Your task to perform on an android device: Open Yahoo.com Image 0: 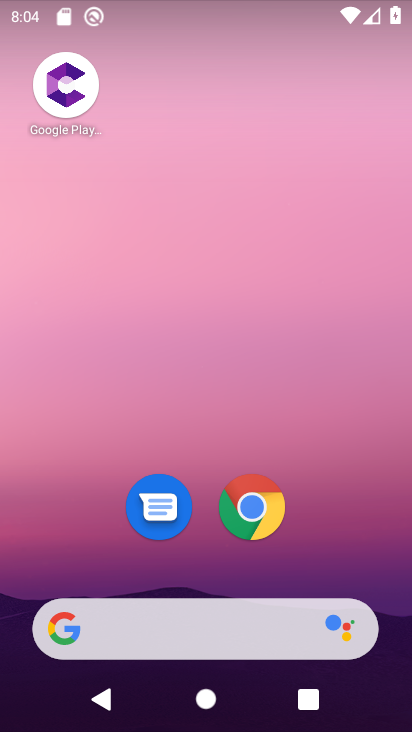
Step 0: drag from (196, 595) to (232, 88)
Your task to perform on an android device: Open Yahoo.com Image 1: 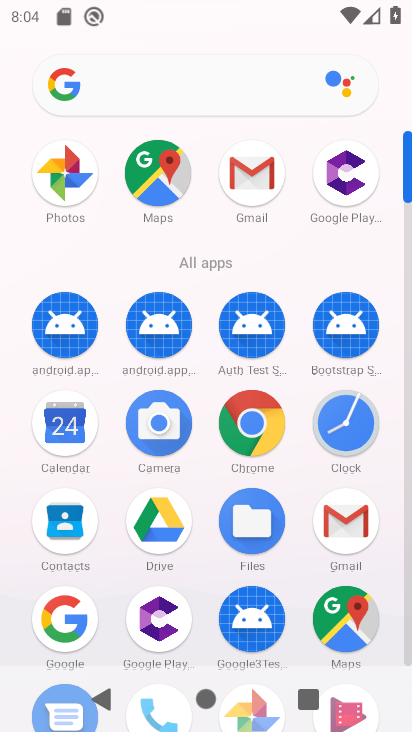
Step 1: drag from (208, 576) to (265, 197)
Your task to perform on an android device: Open Yahoo.com Image 2: 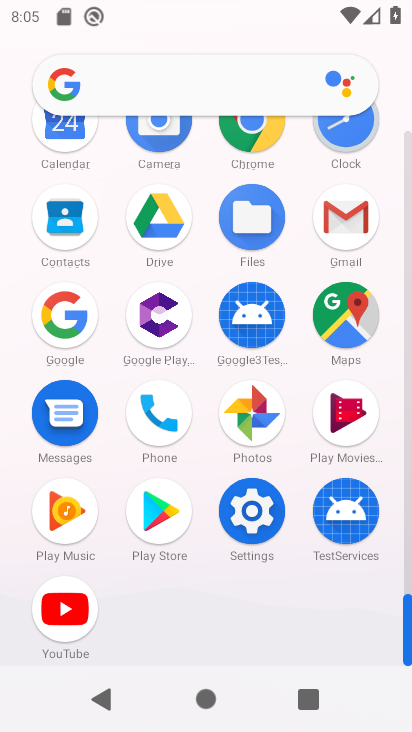
Step 2: click (190, 82)
Your task to perform on an android device: Open Yahoo.com Image 3: 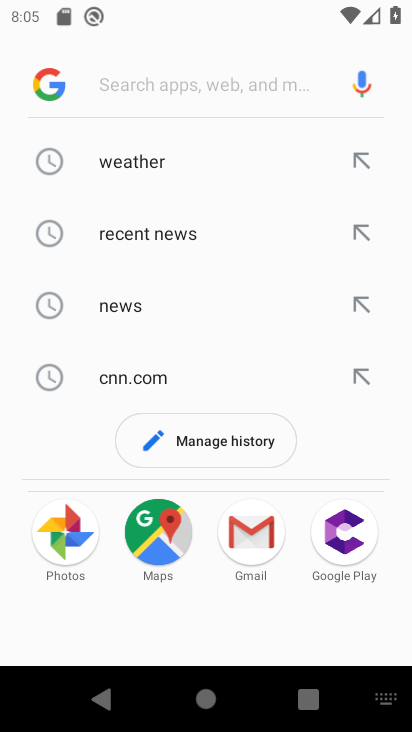
Step 3: type "yahoo.com"
Your task to perform on an android device: Open Yahoo.com Image 4: 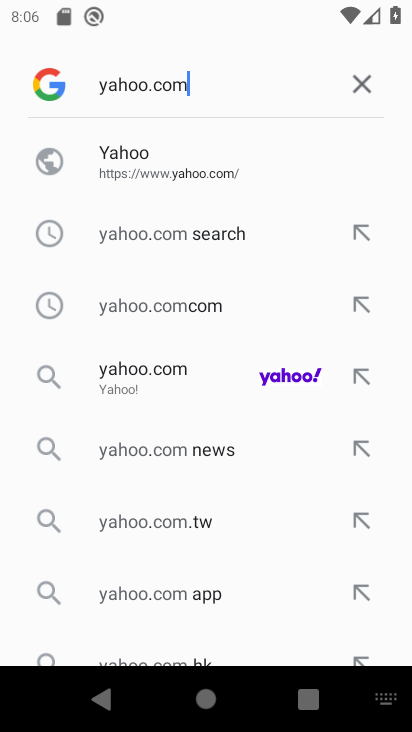
Step 4: click (174, 369)
Your task to perform on an android device: Open Yahoo.com Image 5: 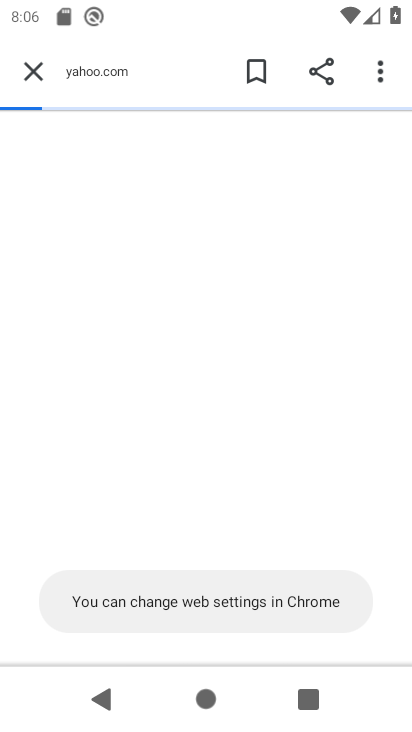
Step 5: task complete